Your task to perform on an android device: turn on improve location accuracy Image 0: 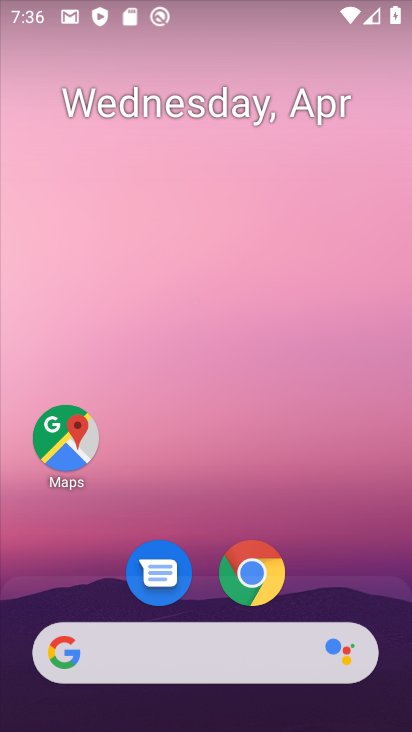
Step 0: drag from (38, 629) to (236, 266)
Your task to perform on an android device: turn on improve location accuracy Image 1: 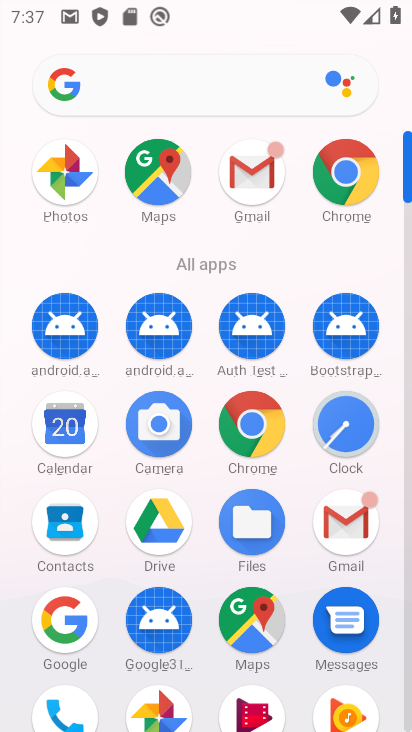
Step 1: drag from (51, 532) to (152, 163)
Your task to perform on an android device: turn on improve location accuracy Image 2: 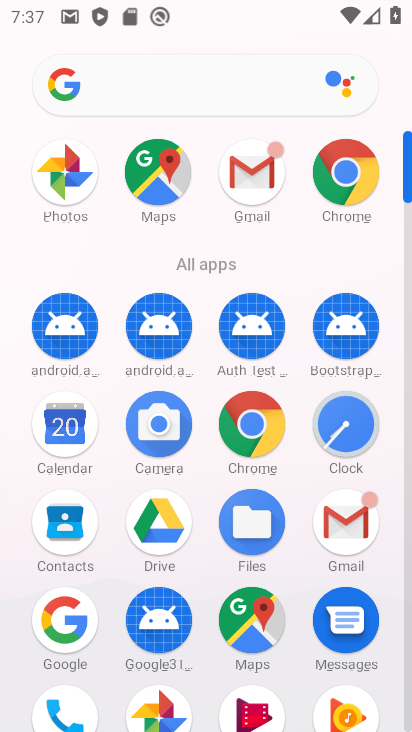
Step 2: drag from (12, 606) to (107, 222)
Your task to perform on an android device: turn on improve location accuracy Image 3: 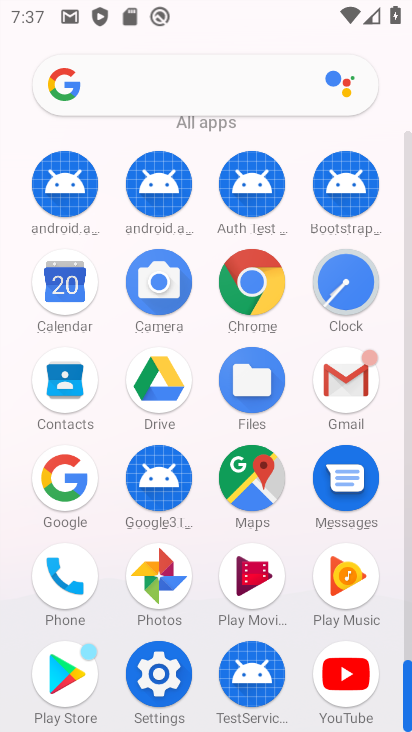
Step 3: click (149, 674)
Your task to perform on an android device: turn on improve location accuracy Image 4: 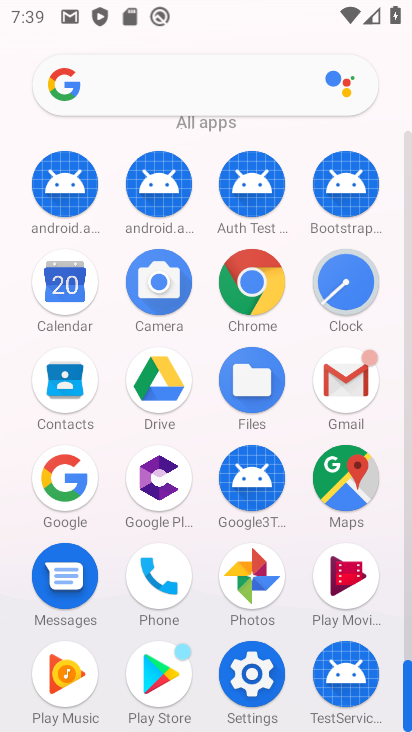
Step 4: click (245, 680)
Your task to perform on an android device: turn on improve location accuracy Image 5: 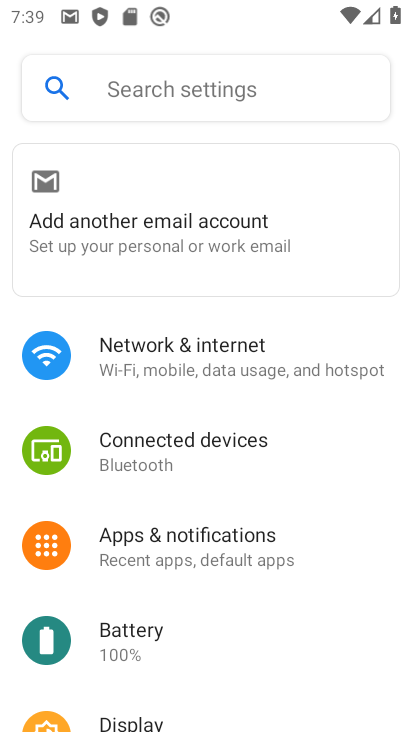
Step 5: drag from (57, 626) to (131, 244)
Your task to perform on an android device: turn on improve location accuracy Image 6: 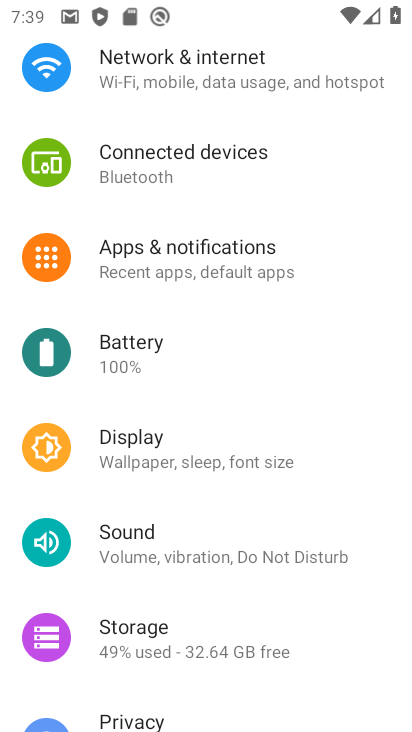
Step 6: drag from (59, 709) to (158, 323)
Your task to perform on an android device: turn on improve location accuracy Image 7: 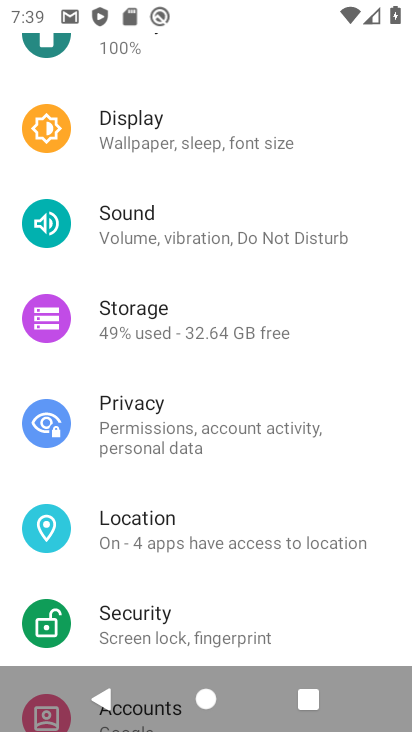
Step 7: click (193, 531)
Your task to perform on an android device: turn on improve location accuracy Image 8: 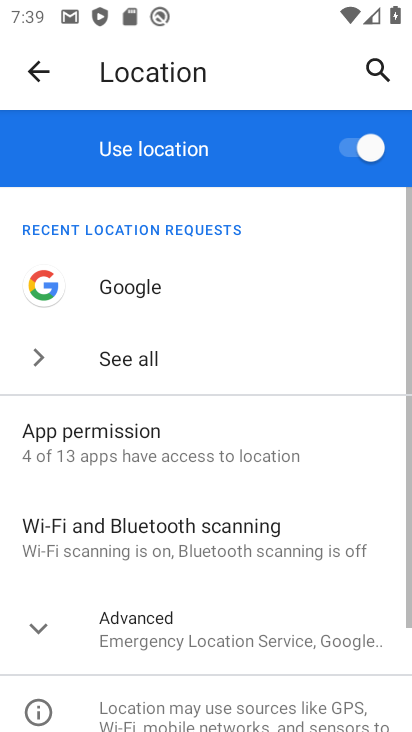
Step 8: click (207, 633)
Your task to perform on an android device: turn on improve location accuracy Image 9: 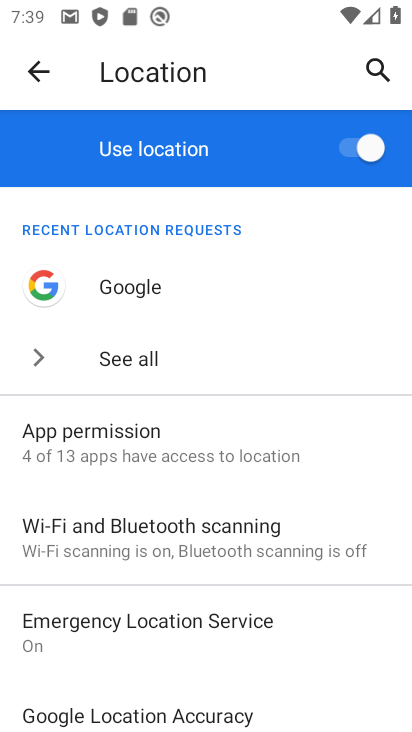
Step 9: click (61, 706)
Your task to perform on an android device: turn on improve location accuracy Image 10: 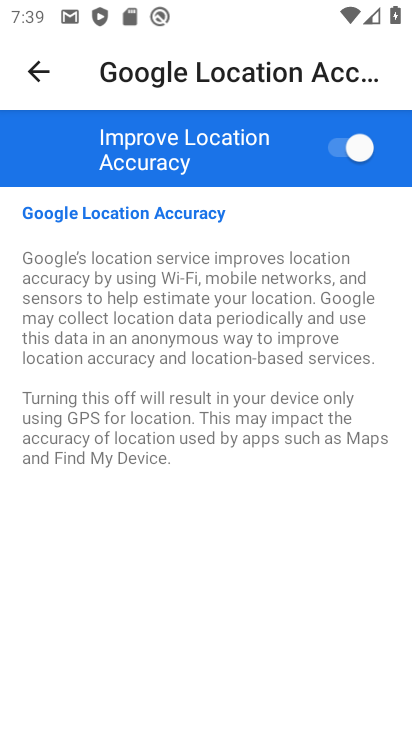
Step 10: task complete